Your task to perform on an android device: What's the weather? Image 0: 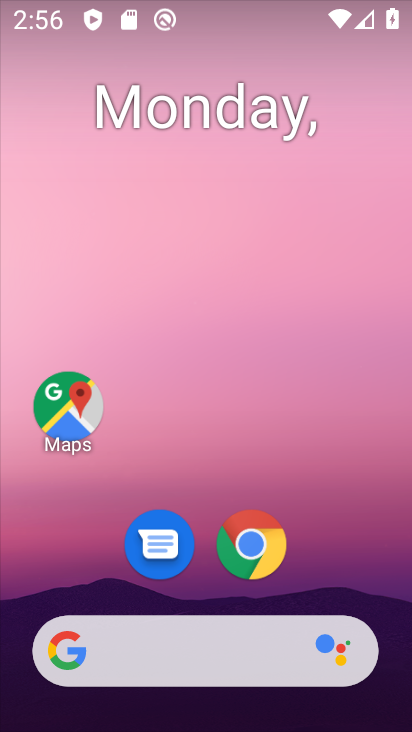
Step 0: click (224, 657)
Your task to perform on an android device: What's the weather? Image 1: 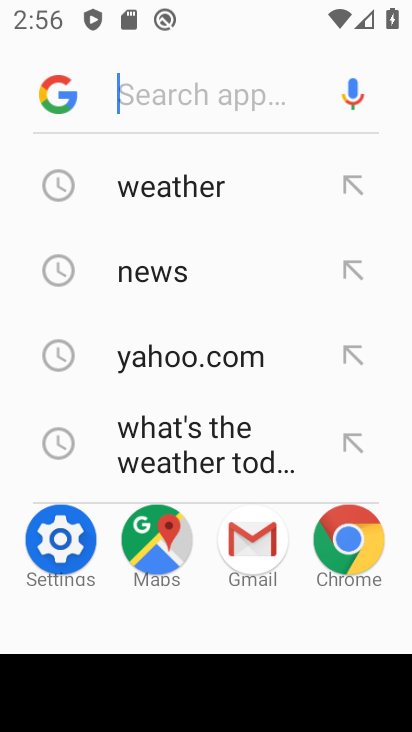
Step 1: click (187, 191)
Your task to perform on an android device: What's the weather? Image 2: 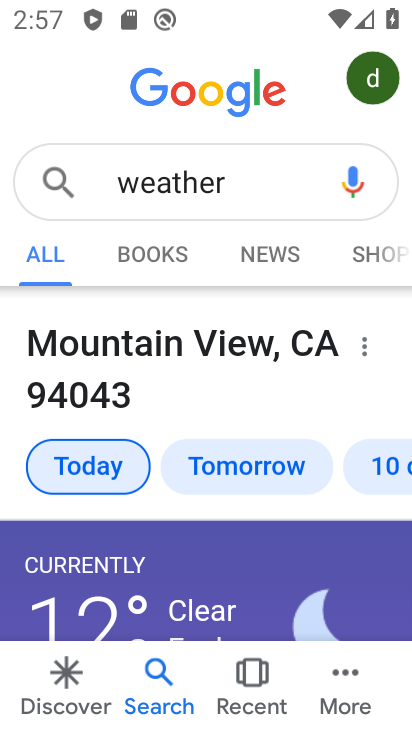
Step 2: task complete